Your task to perform on an android device: turn on wifi Image 0: 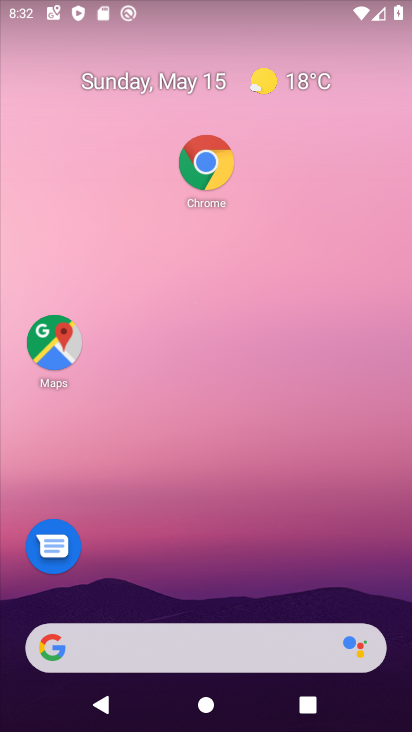
Step 0: drag from (241, 597) to (229, 221)
Your task to perform on an android device: turn on wifi Image 1: 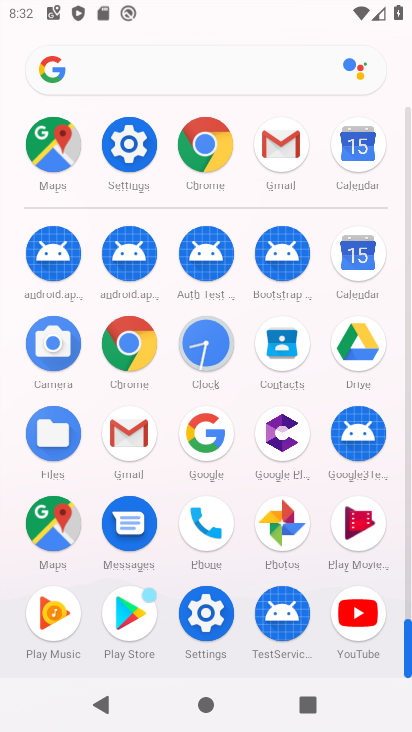
Step 1: click (120, 140)
Your task to perform on an android device: turn on wifi Image 2: 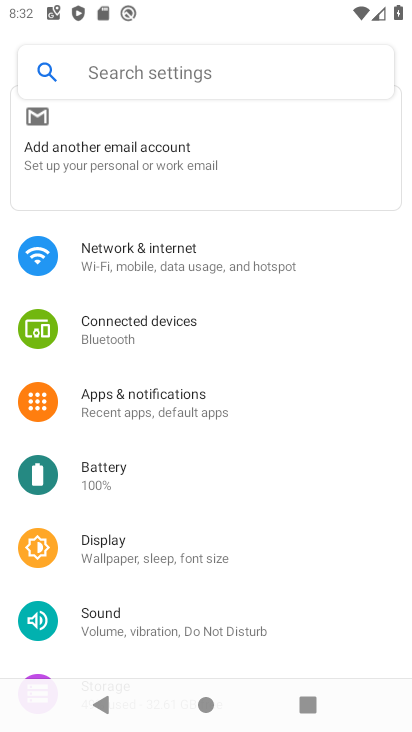
Step 2: click (146, 243)
Your task to perform on an android device: turn on wifi Image 3: 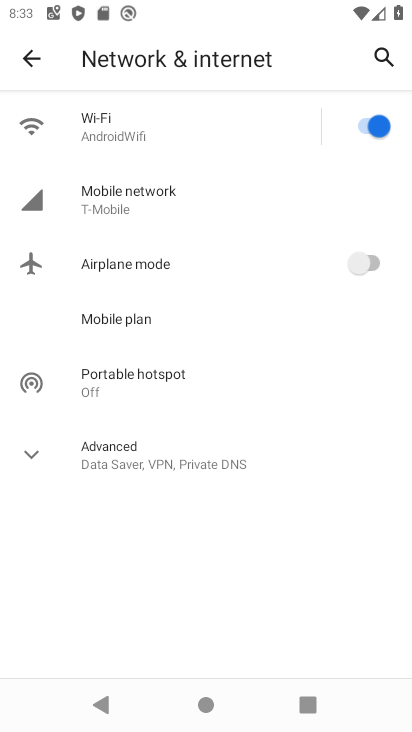
Step 3: task complete